Your task to perform on an android device: open app "Messages" (install if not already installed) Image 0: 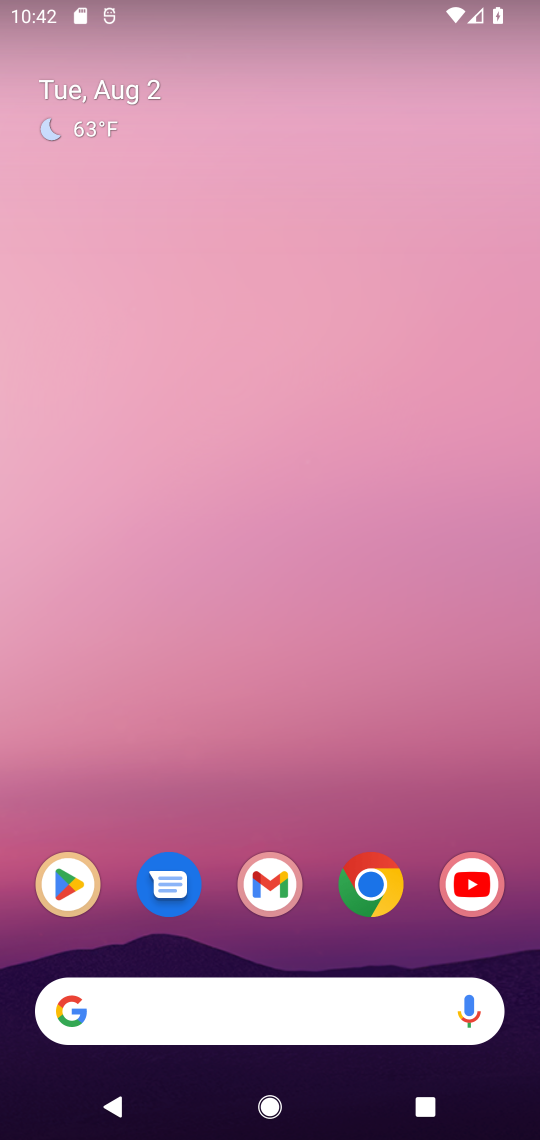
Step 0: click (90, 879)
Your task to perform on an android device: open app "Messages" (install if not already installed) Image 1: 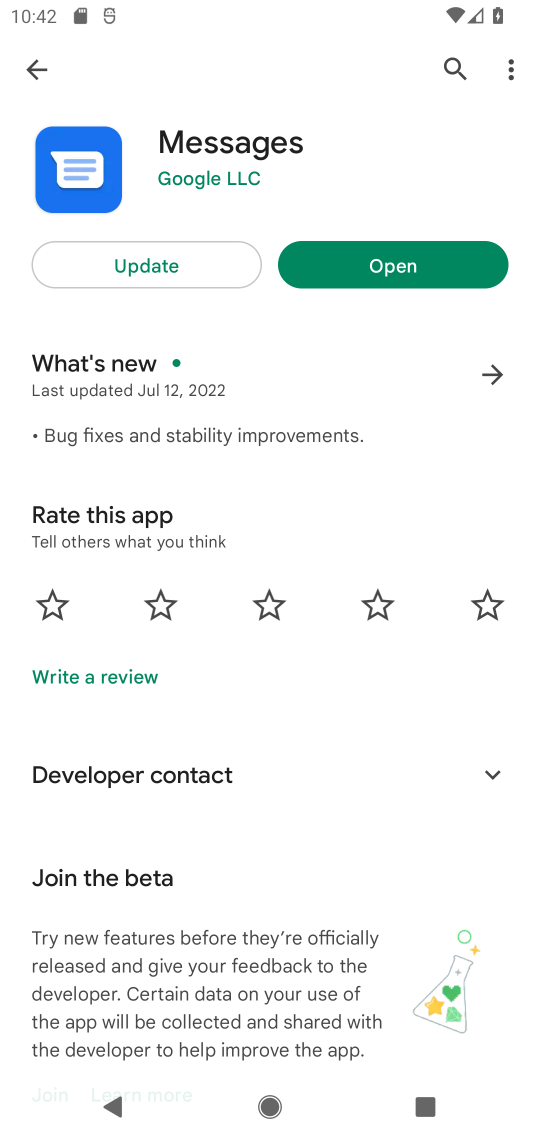
Step 1: click (363, 256)
Your task to perform on an android device: open app "Messages" (install if not already installed) Image 2: 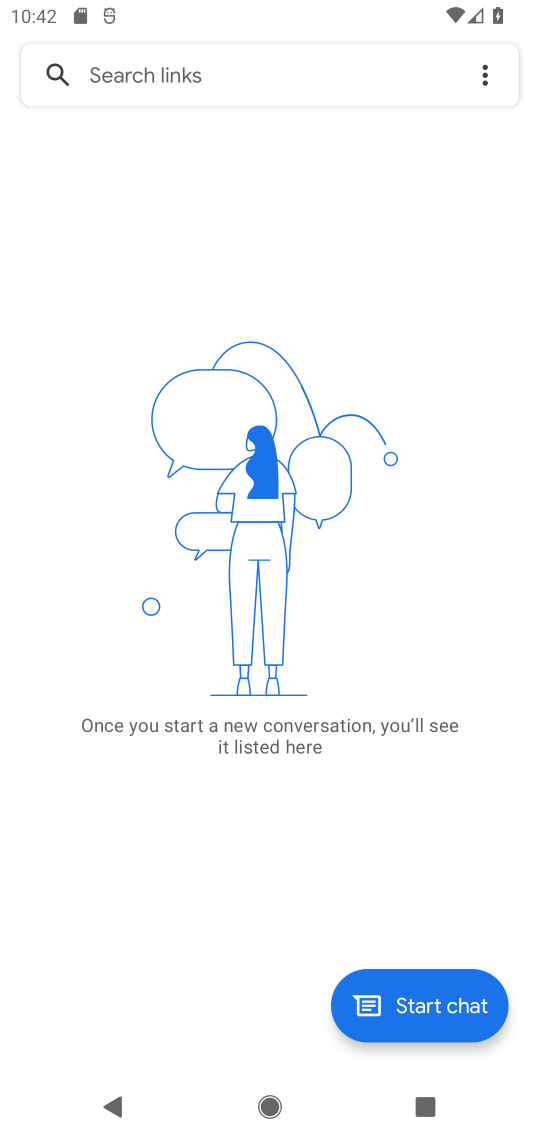
Step 2: task complete